Your task to perform on an android device: Go to Yahoo.com Image 0: 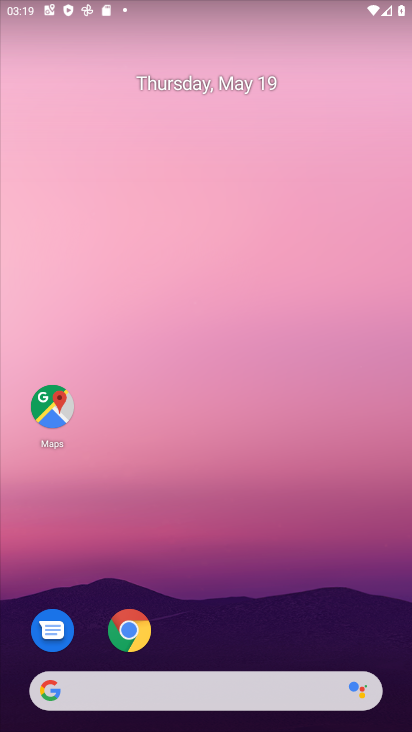
Step 0: click (130, 633)
Your task to perform on an android device: Go to Yahoo.com Image 1: 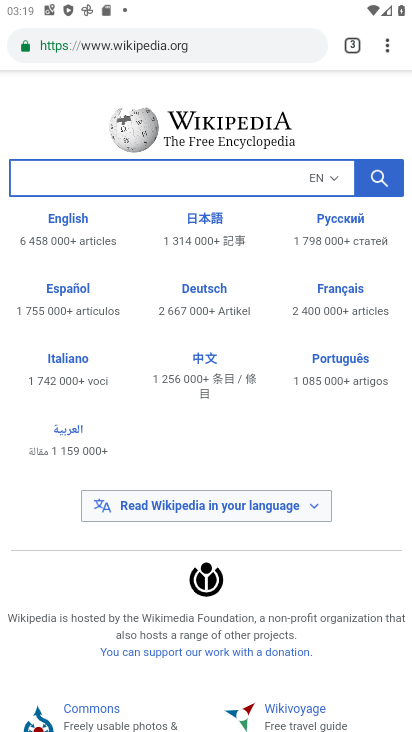
Step 1: click (219, 40)
Your task to perform on an android device: Go to Yahoo.com Image 2: 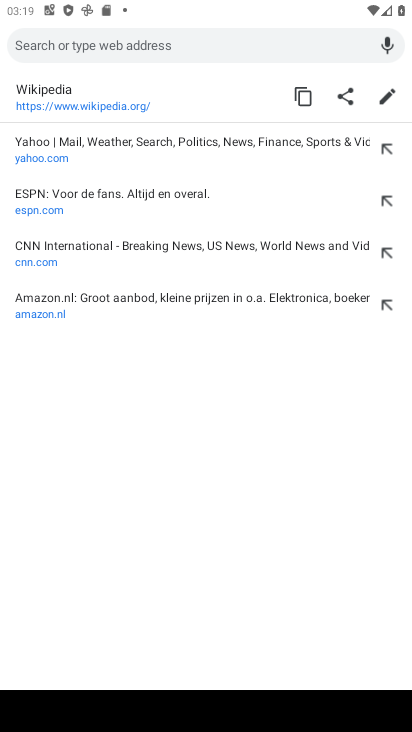
Step 2: type "yahoo.com"
Your task to perform on an android device: Go to Yahoo.com Image 3: 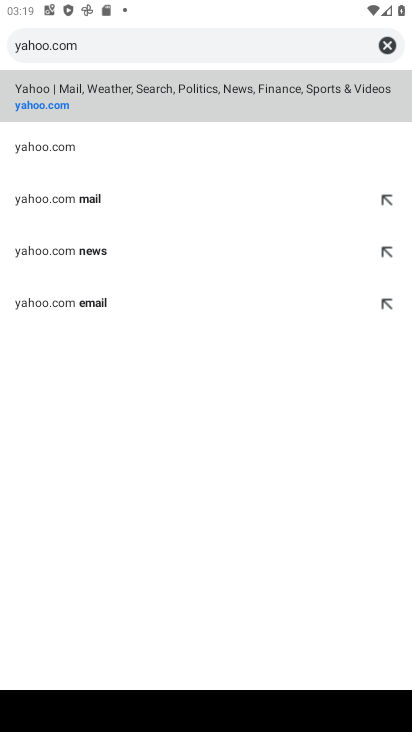
Step 3: click (85, 86)
Your task to perform on an android device: Go to Yahoo.com Image 4: 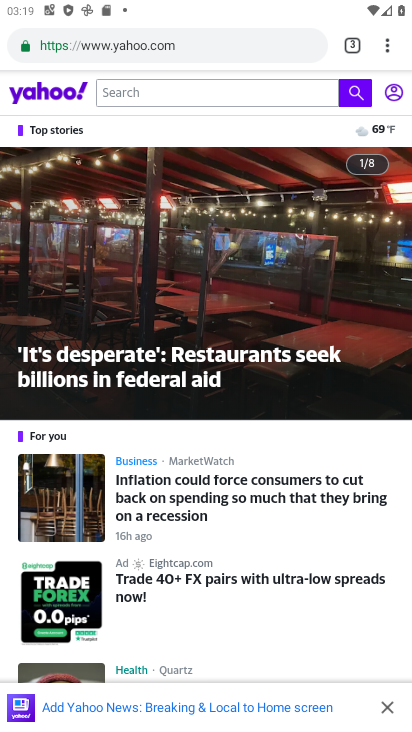
Step 4: task complete